Your task to perform on an android device: Search for a coffee table on IKEA Image 0: 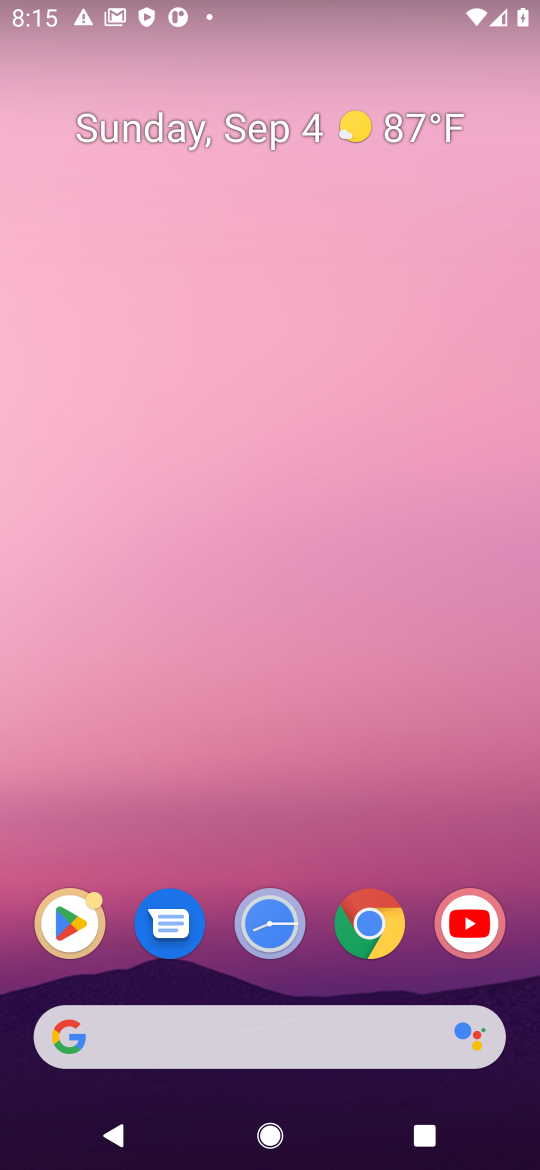
Step 0: click (388, 1035)
Your task to perform on an android device: Search for a coffee table on IKEA Image 1: 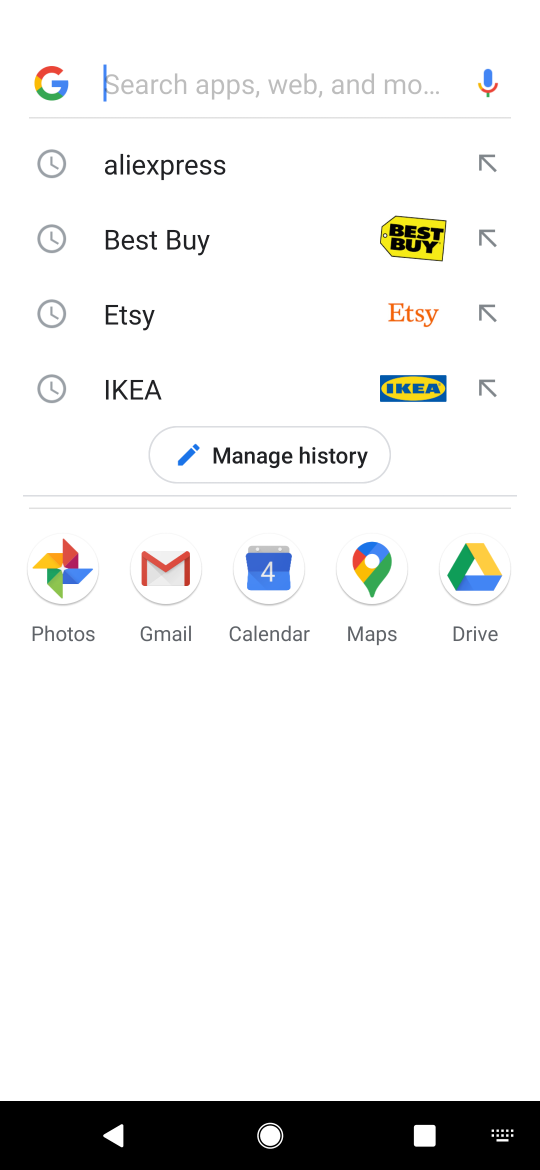
Step 1: press enter
Your task to perform on an android device: Search for a coffee table on IKEA Image 2: 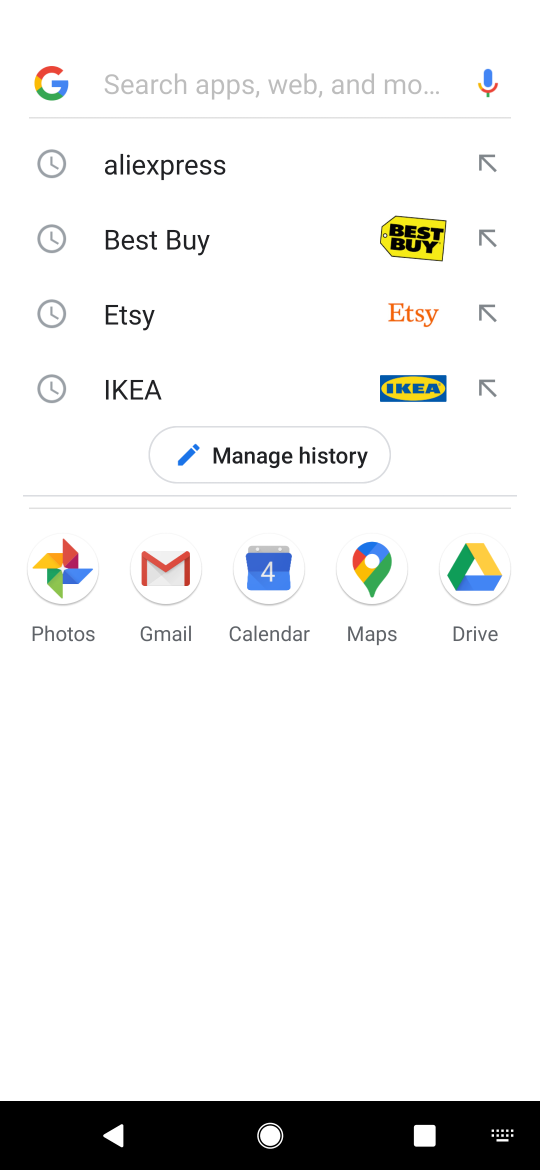
Step 2: type "ikea"
Your task to perform on an android device: Search for a coffee table on IKEA Image 3: 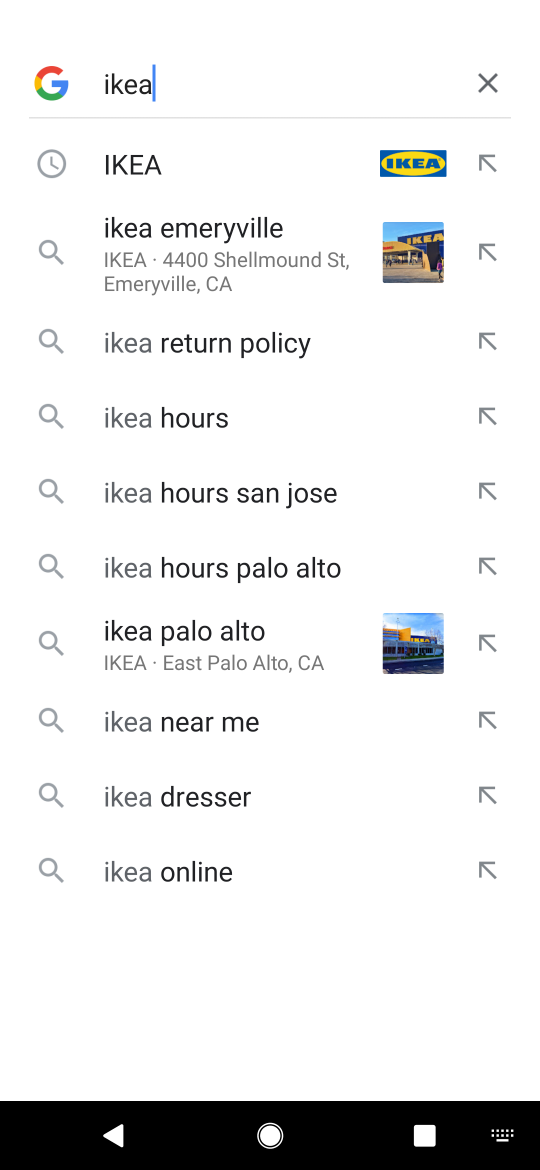
Step 3: click (244, 145)
Your task to perform on an android device: Search for a coffee table on IKEA Image 4: 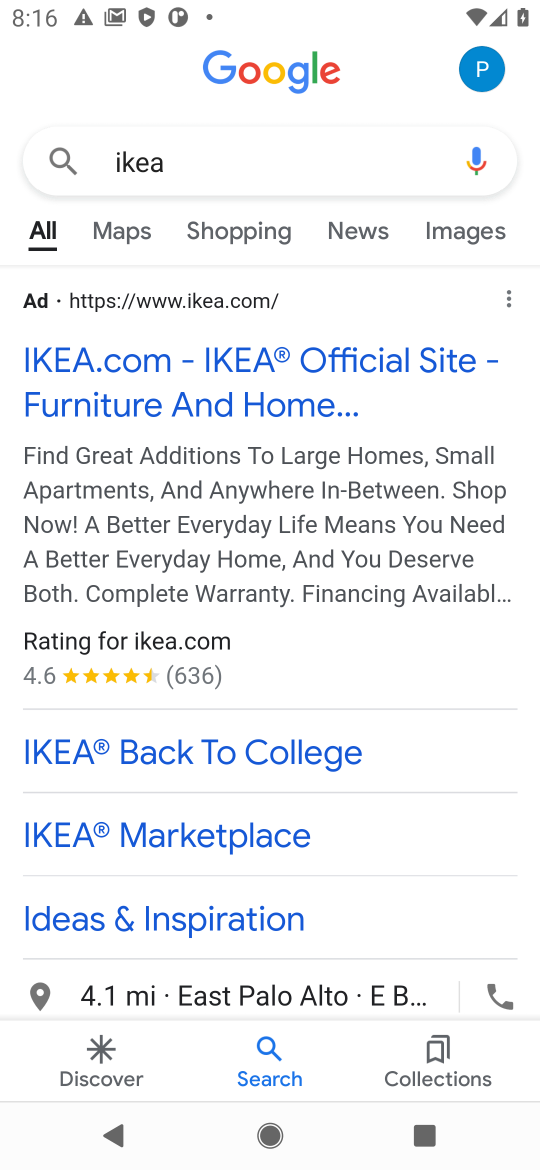
Step 4: click (260, 375)
Your task to perform on an android device: Search for a coffee table on IKEA Image 5: 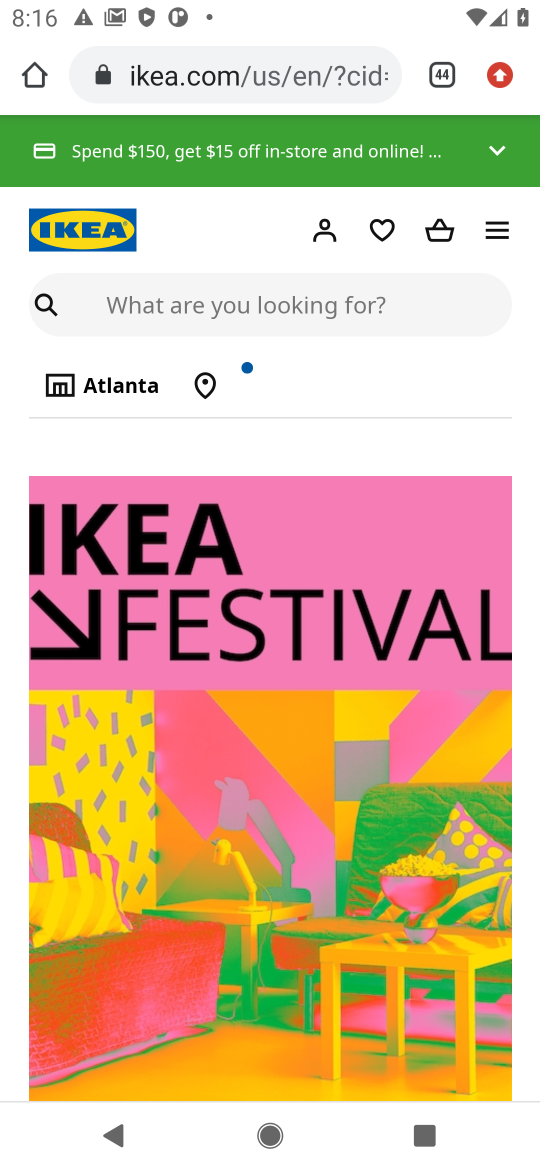
Step 5: click (186, 301)
Your task to perform on an android device: Search for a coffee table on IKEA Image 6: 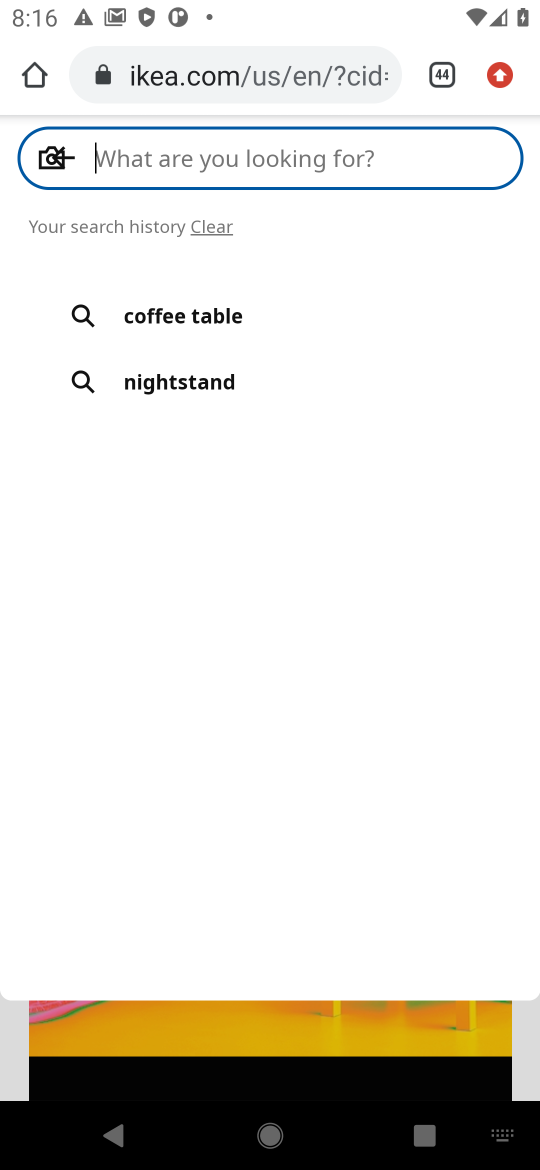
Step 6: click (205, 315)
Your task to perform on an android device: Search for a coffee table on IKEA Image 7: 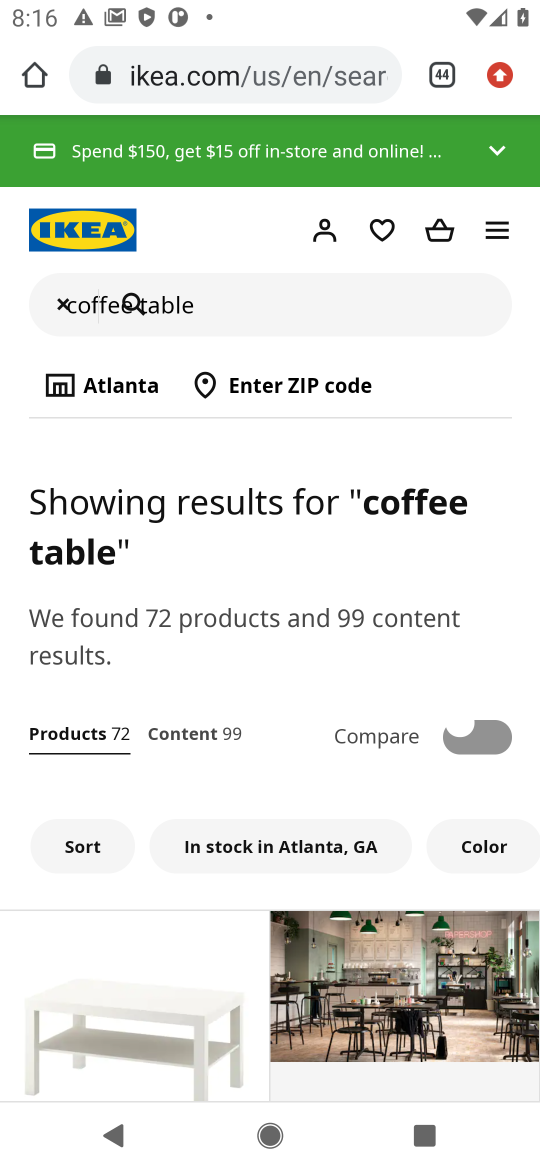
Step 7: task complete